Your task to perform on an android device: all mails in gmail Image 0: 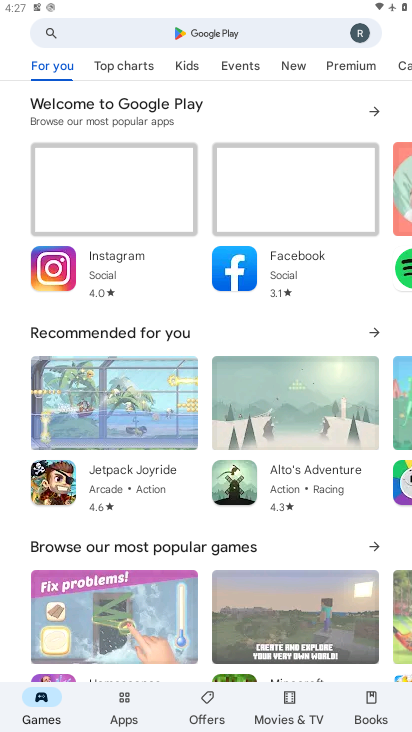
Step 0: press home button
Your task to perform on an android device: all mails in gmail Image 1: 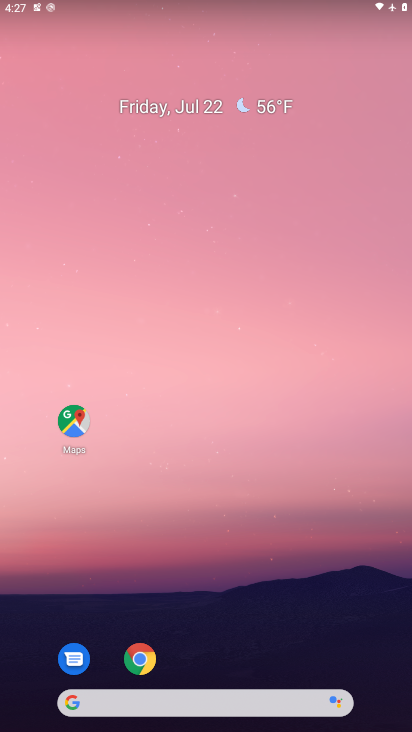
Step 1: drag from (157, 647) to (164, 213)
Your task to perform on an android device: all mails in gmail Image 2: 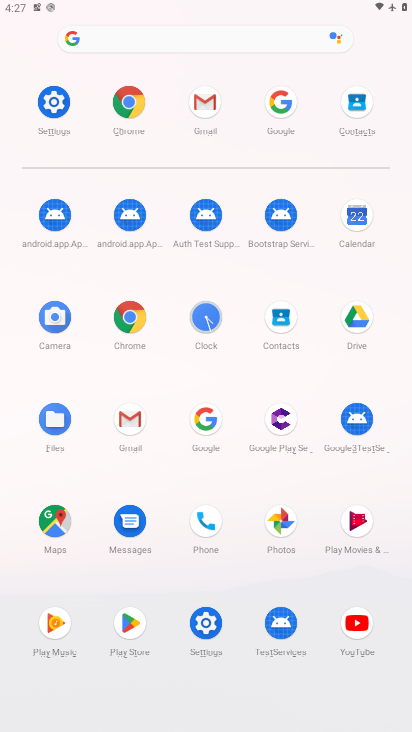
Step 2: click (123, 409)
Your task to perform on an android device: all mails in gmail Image 3: 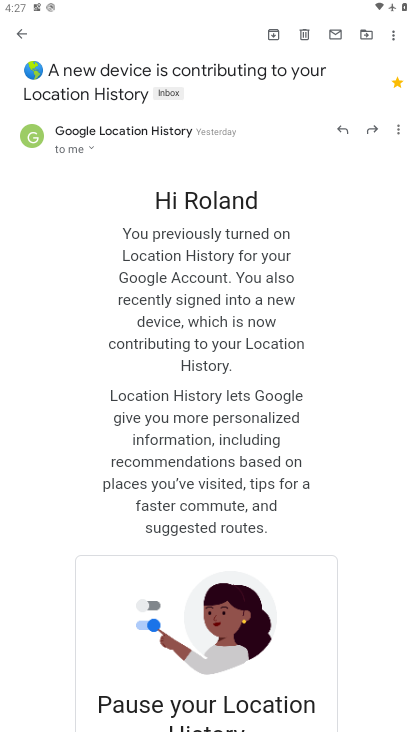
Step 3: click (19, 34)
Your task to perform on an android device: all mails in gmail Image 4: 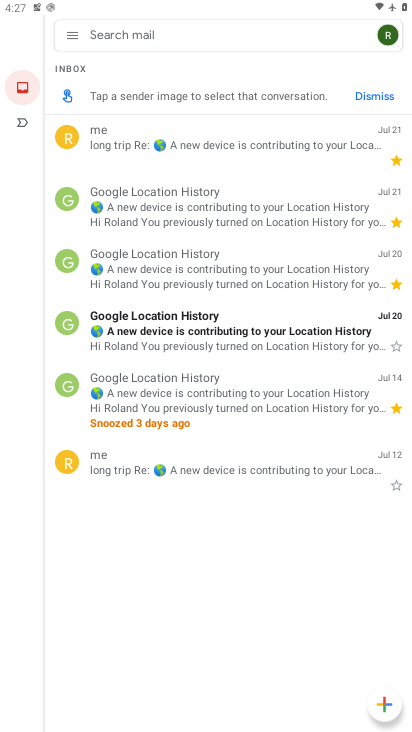
Step 4: click (65, 34)
Your task to perform on an android device: all mails in gmail Image 5: 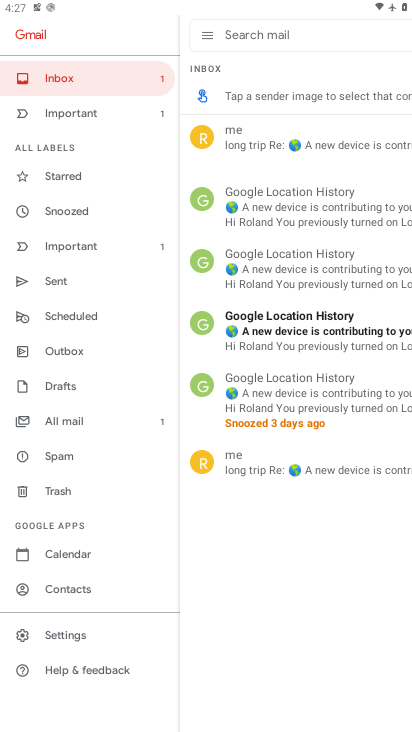
Step 5: click (69, 431)
Your task to perform on an android device: all mails in gmail Image 6: 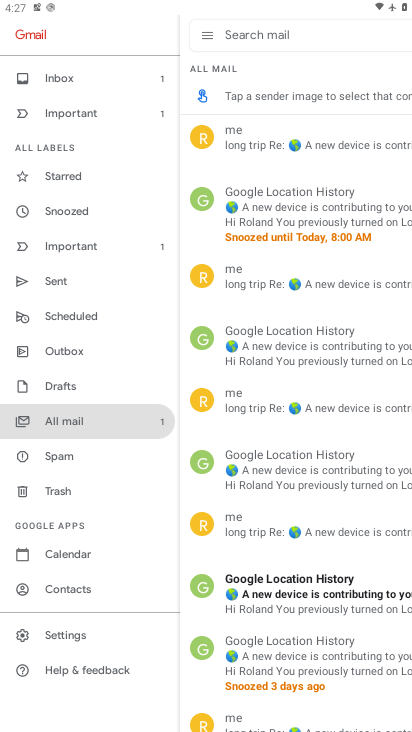
Step 6: task complete